Your task to perform on an android device: change alarm snooze length Image 0: 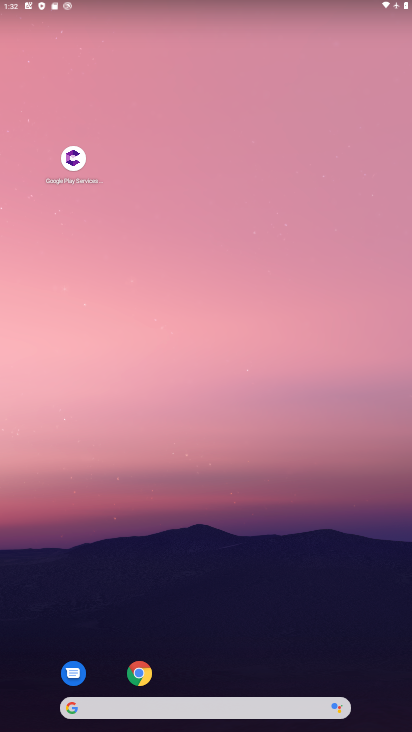
Step 0: drag from (135, 635) to (162, 331)
Your task to perform on an android device: change alarm snooze length Image 1: 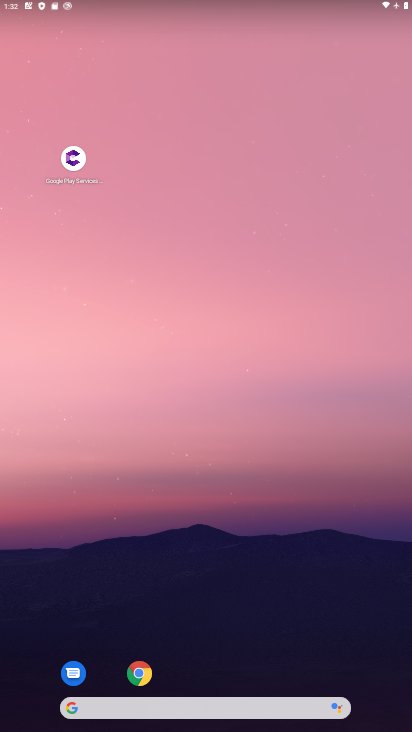
Step 1: drag from (275, 716) to (265, 286)
Your task to perform on an android device: change alarm snooze length Image 2: 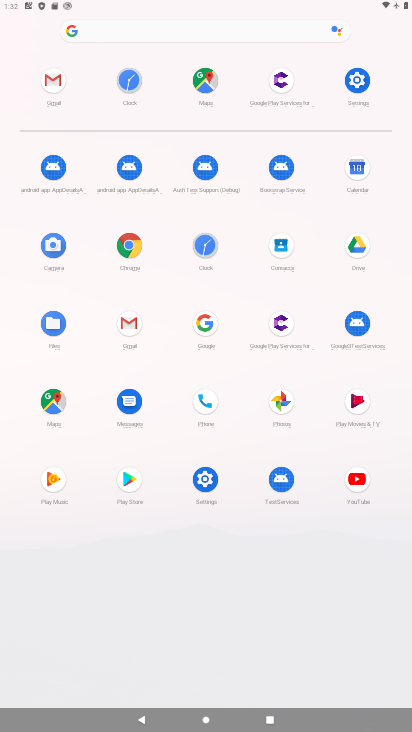
Step 2: click (358, 77)
Your task to perform on an android device: change alarm snooze length Image 3: 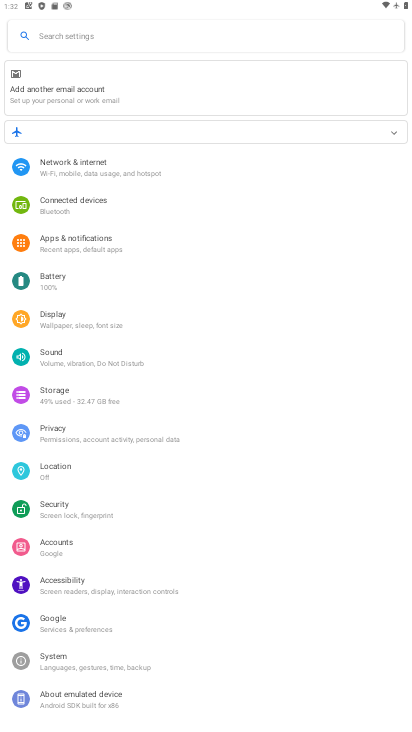
Step 3: press home button
Your task to perform on an android device: change alarm snooze length Image 4: 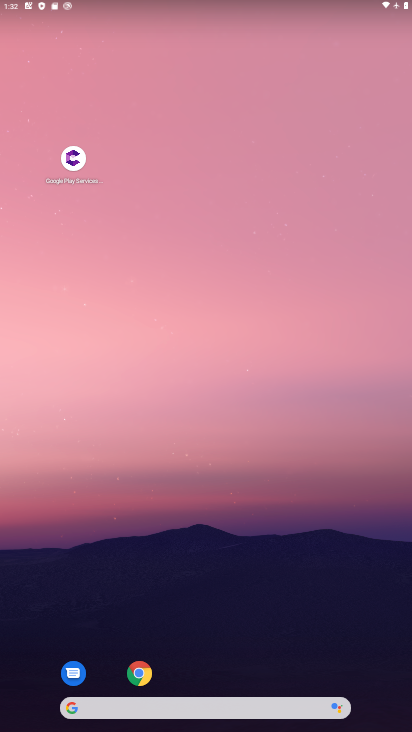
Step 4: drag from (202, 649) to (202, 571)
Your task to perform on an android device: change alarm snooze length Image 5: 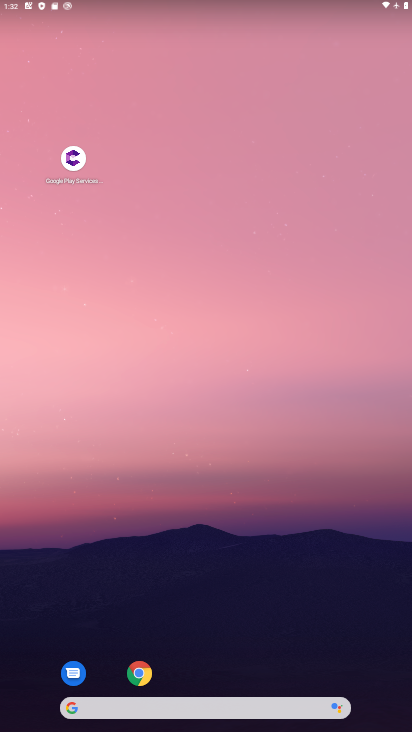
Step 5: drag from (233, 709) to (281, 96)
Your task to perform on an android device: change alarm snooze length Image 6: 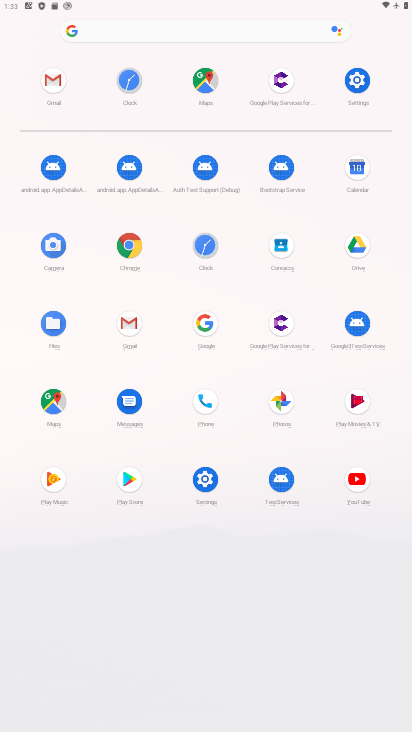
Step 6: click (208, 250)
Your task to perform on an android device: change alarm snooze length Image 7: 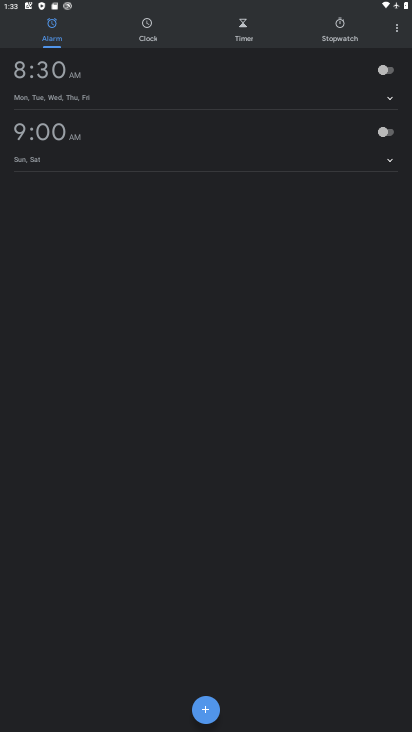
Step 7: click (405, 24)
Your task to perform on an android device: change alarm snooze length Image 8: 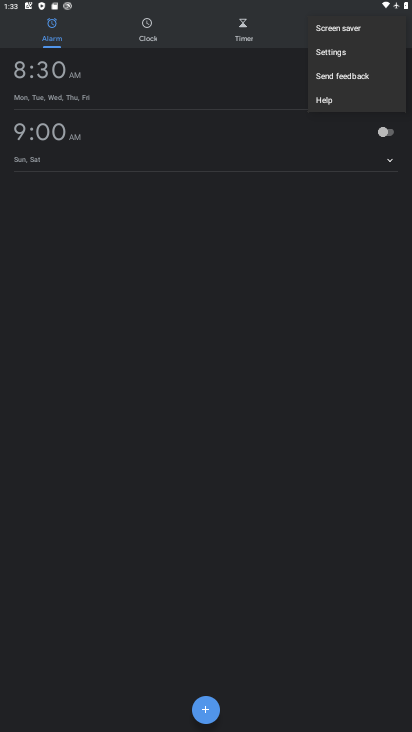
Step 8: click (346, 52)
Your task to perform on an android device: change alarm snooze length Image 9: 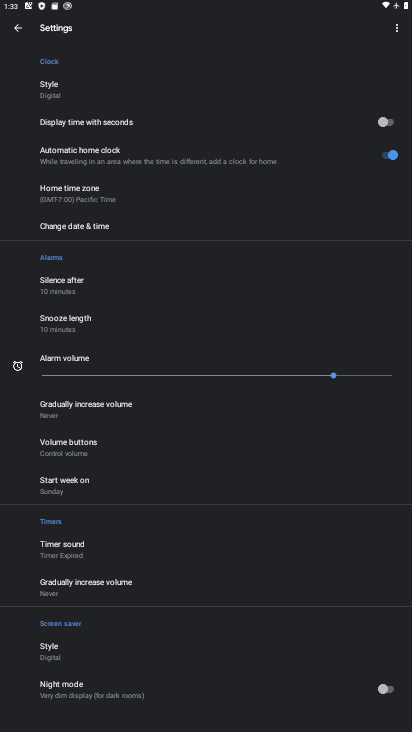
Step 9: click (94, 320)
Your task to perform on an android device: change alarm snooze length Image 10: 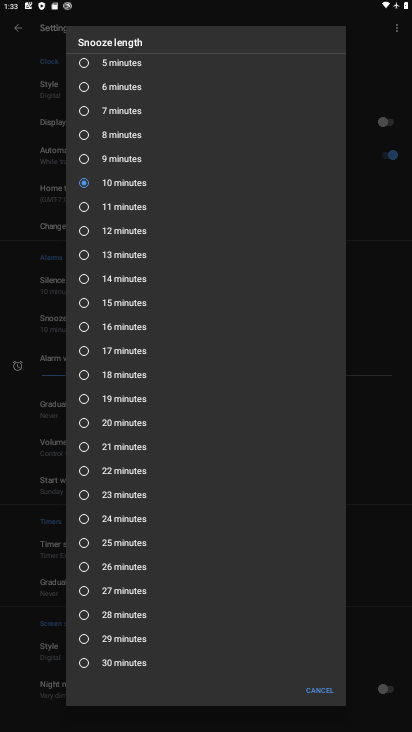
Step 10: click (124, 564)
Your task to perform on an android device: change alarm snooze length Image 11: 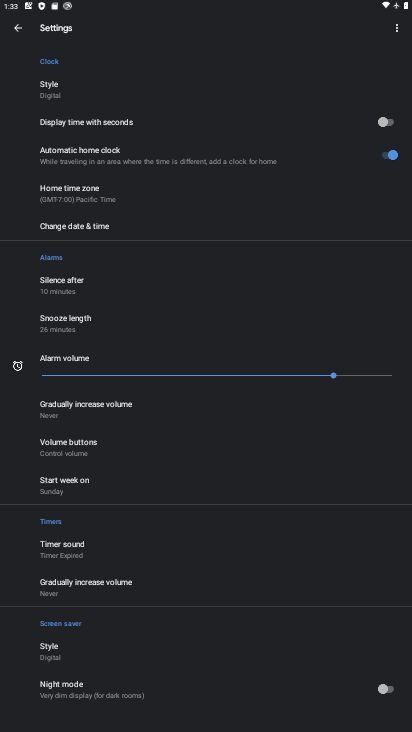
Step 11: task complete